Your task to perform on an android device: Go to settings Image 0: 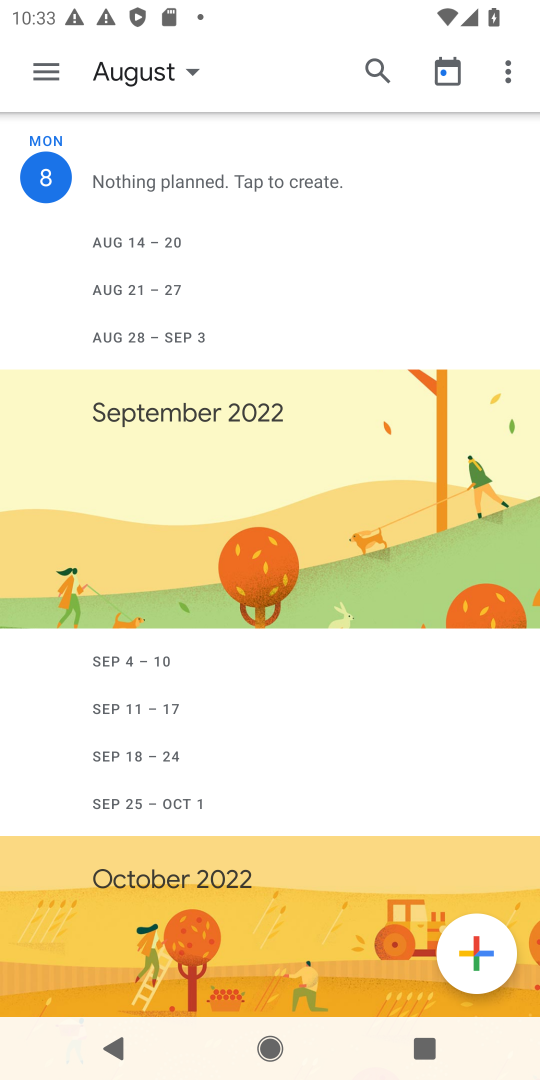
Step 0: press home button
Your task to perform on an android device: Go to settings Image 1: 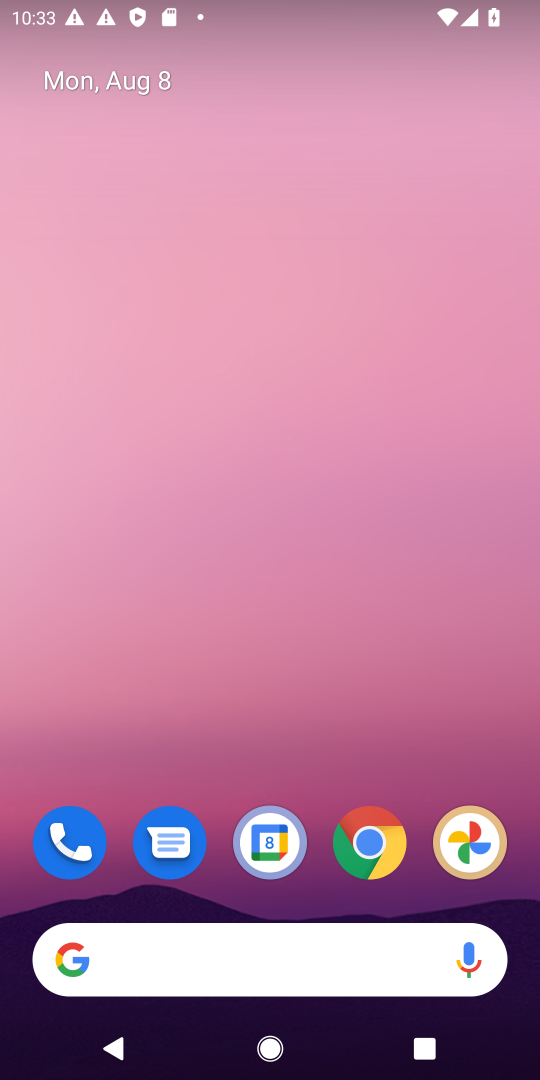
Step 1: click (212, 816)
Your task to perform on an android device: Go to settings Image 2: 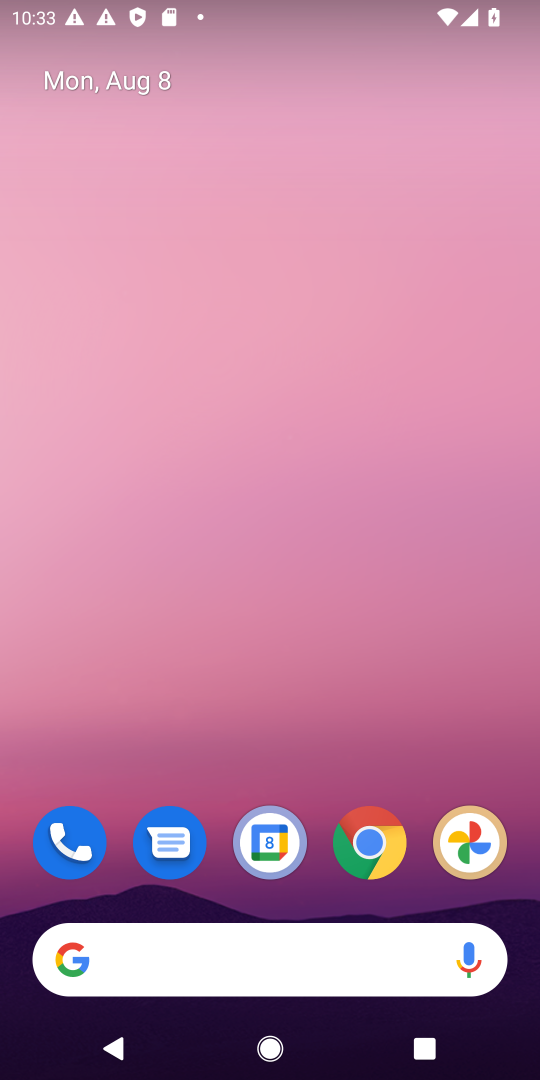
Step 2: click (306, 620)
Your task to perform on an android device: Go to settings Image 3: 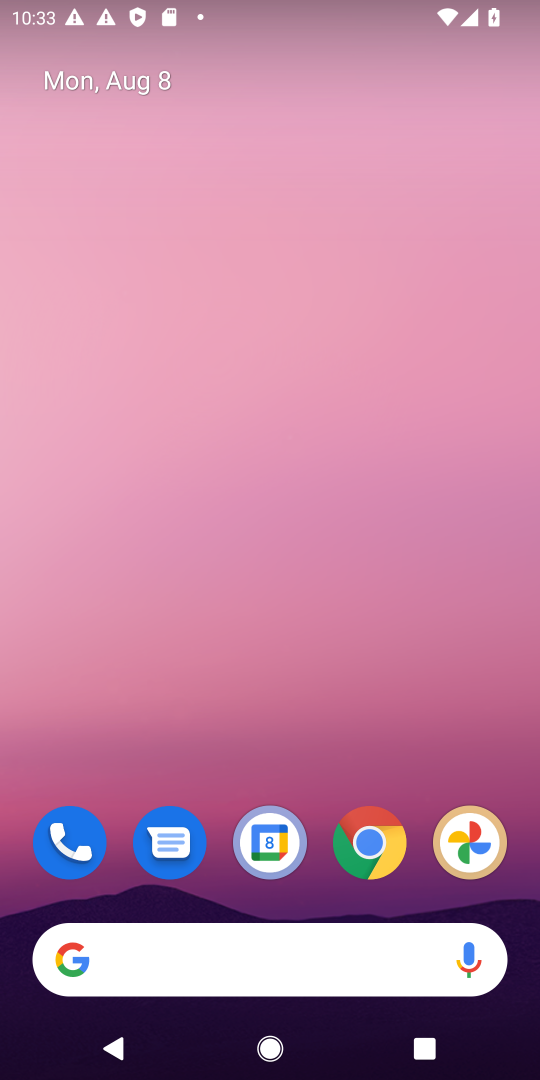
Step 3: drag from (306, 620) to (339, 453)
Your task to perform on an android device: Go to settings Image 4: 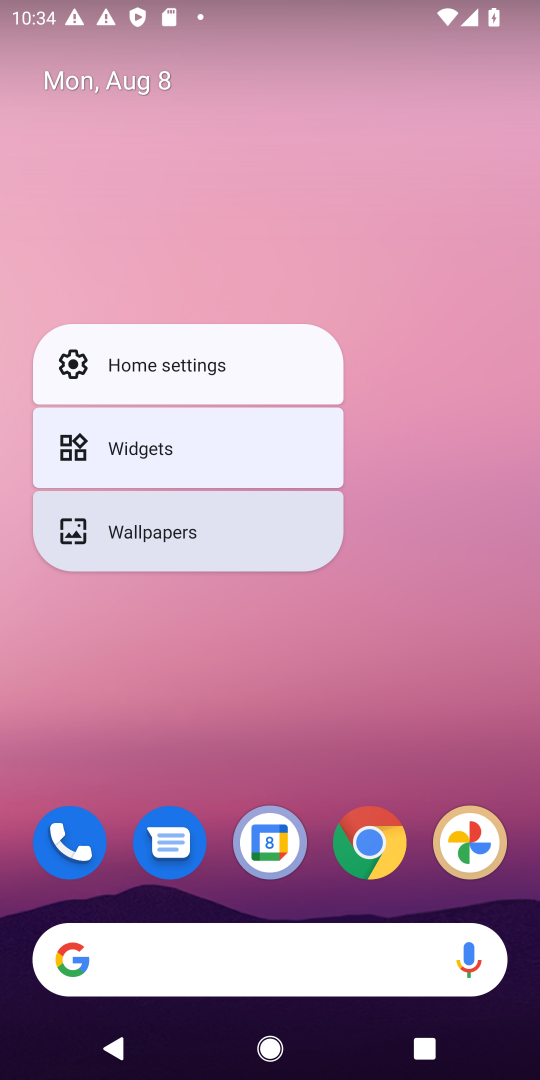
Step 4: drag from (465, 765) to (472, 205)
Your task to perform on an android device: Go to settings Image 5: 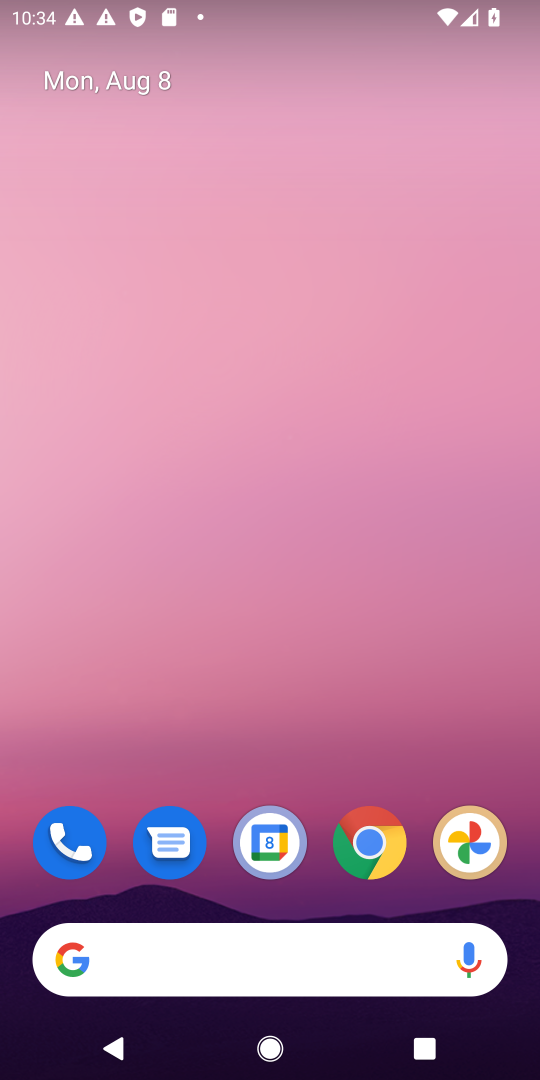
Step 5: drag from (346, 780) to (468, 114)
Your task to perform on an android device: Go to settings Image 6: 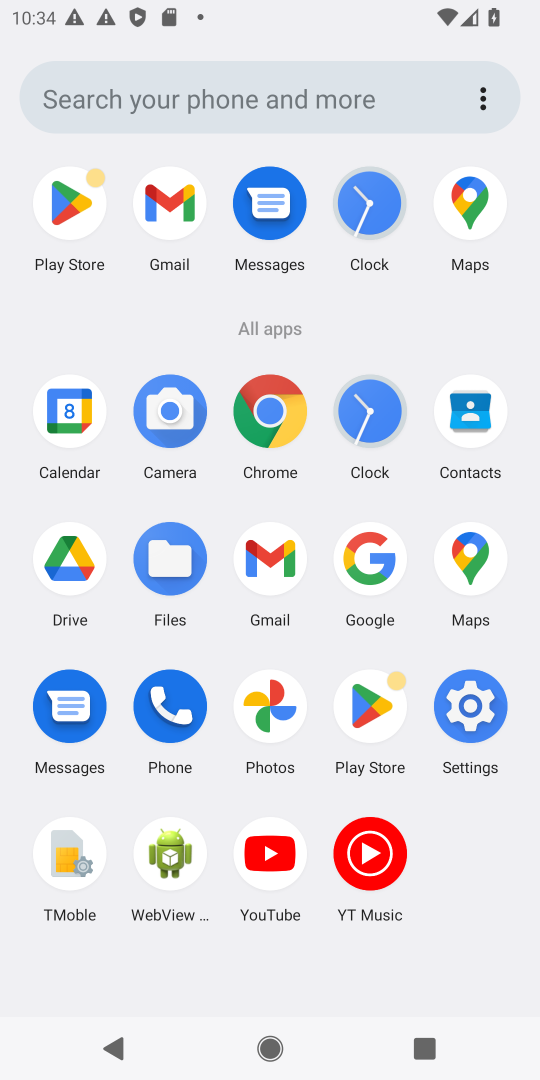
Step 6: click (456, 706)
Your task to perform on an android device: Go to settings Image 7: 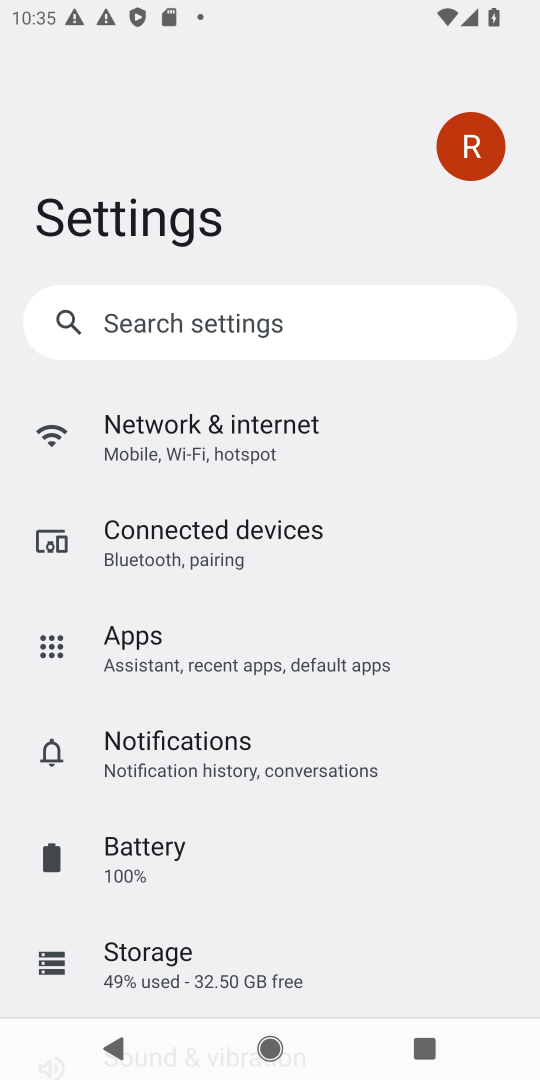
Step 7: task complete